Your task to perform on an android device: read, delete, or share a saved page in the chrome app Image 0: 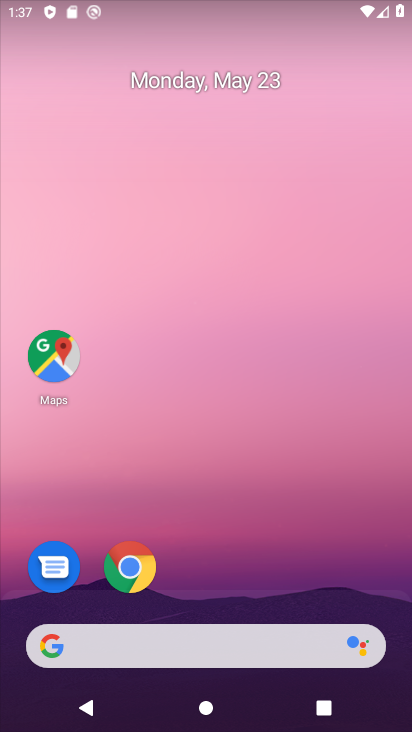
Step 0: click (117, 575)
Your task to perform on an android device: read, delete, or share a saved page in the chrome app Image 1: 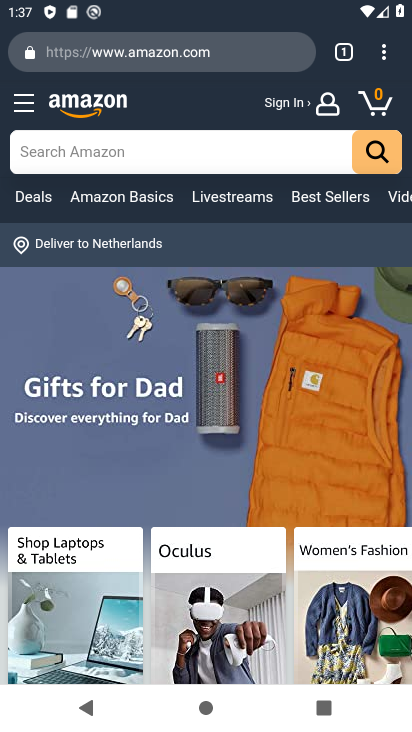
Step 1: click (398, 50)
Your task to perform on an android device: read, delete, or share a saved page in the chrome app Image 2: 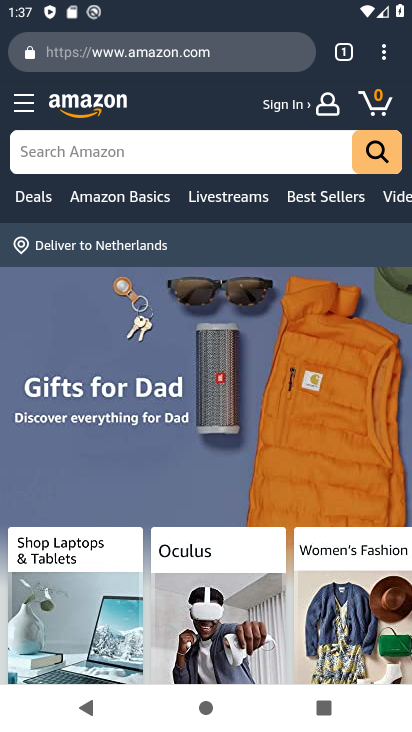
Step 2: click (398, 50)
Your task to perform on an android device: read, delete, or share a saved page in the chrome app Image 3: 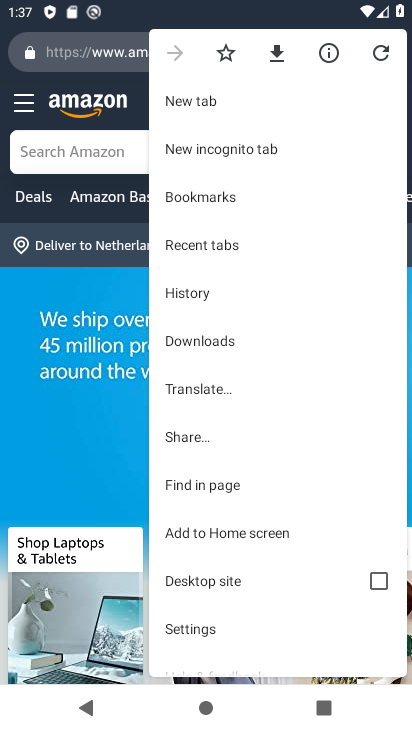
Step 3: click (217, 347)
Your task to perform on an android device: read, delete, or share a saved page in the chrome app Image 4: 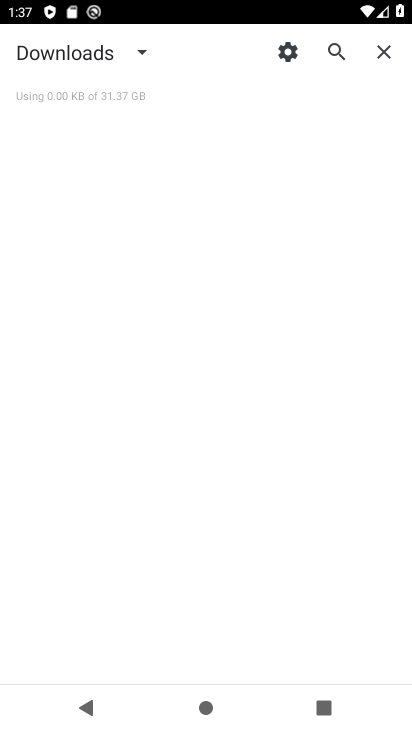
Step 4: click (87, 56)
Your task to perform on an android device: read, delete, or share a saved page in the chrome app Image 5: 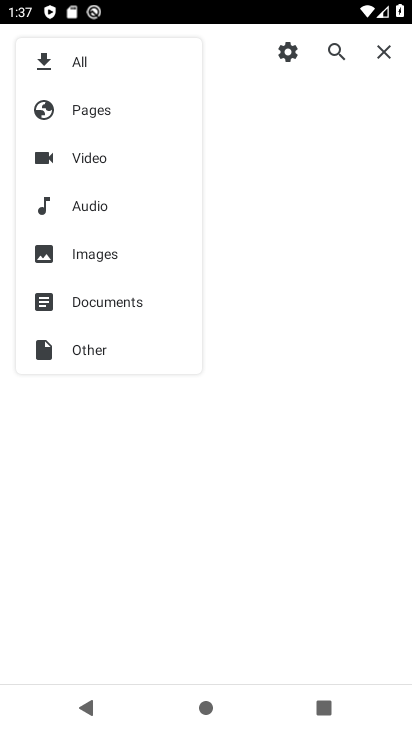
Step 5: click (107, 121)
Your task to perform on an android device: read, delete, or share a saved page in the chrome app Image 6: 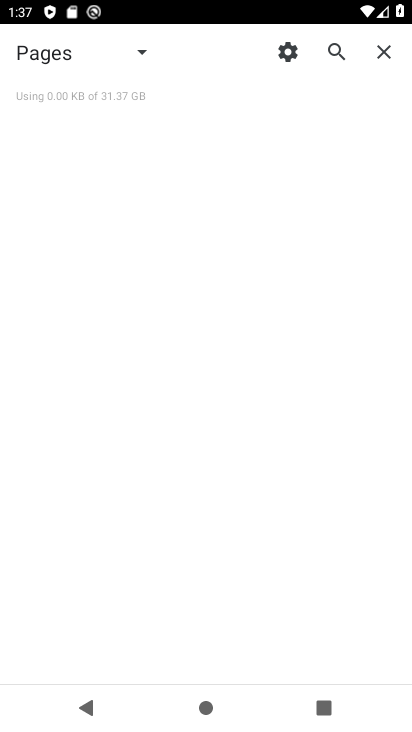
Step 6: task complete